Your task to perform on an android device: turn off translation in the chrome app Image 0: 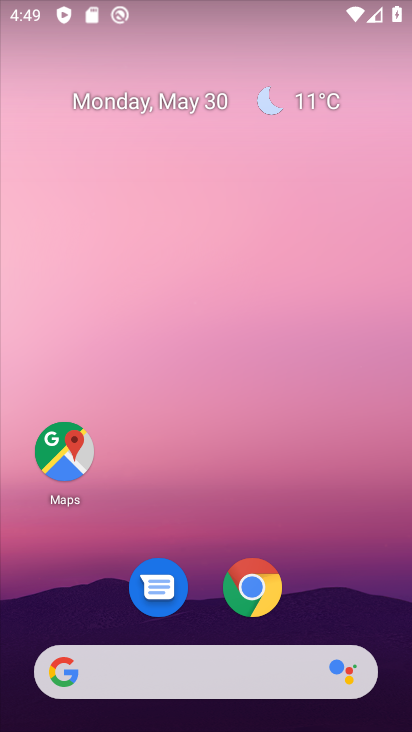
Step 0: drag from (309, 483) to (218, 37)
Your task to perform on an android device: turn off translation in the chrome app Image 1: 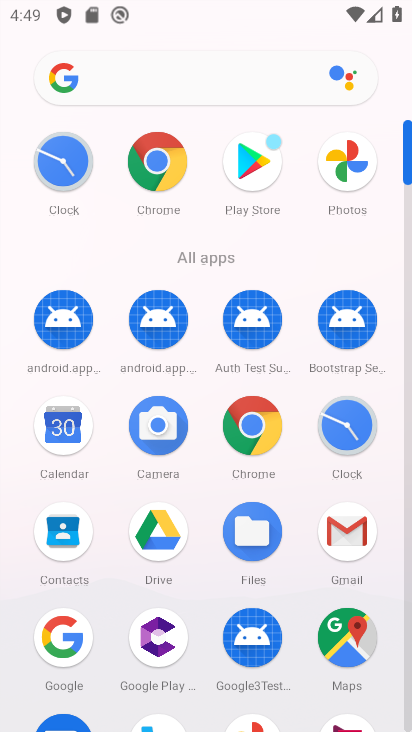
Step 1: drag from (16, 522) to (14, 284)
Your task to perform on an android device: turn off translation in the chrome app Image 2: 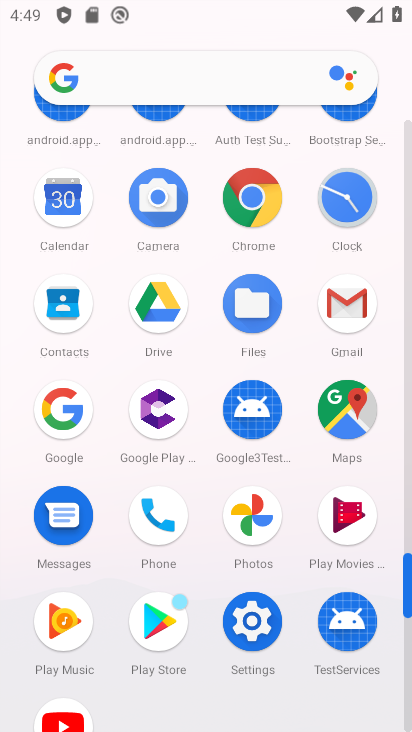
Step 2: click (250, 195)
Your task to perform on an android device: turn off translation in the chrome app Image 3: 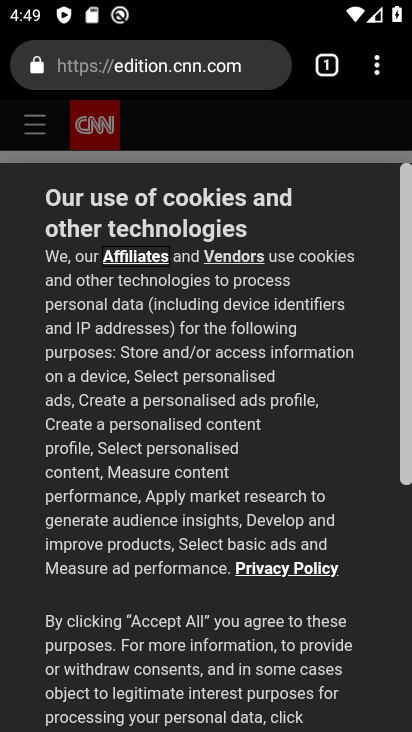
Step 3: drag from (378, 69) to (162, 634)
Your task to perform on an android device: turn off translation in the chrome app Image 4: 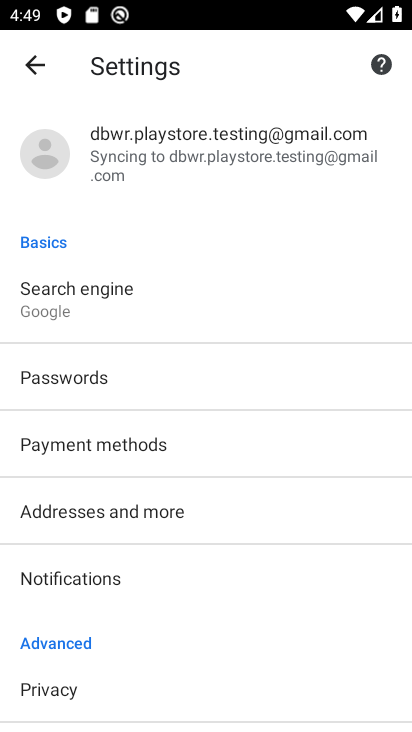
Step 4: drag from (233, 533) to (235, 217)
Your task to perform on an android device: turn off translation in the chrome app Image 5: 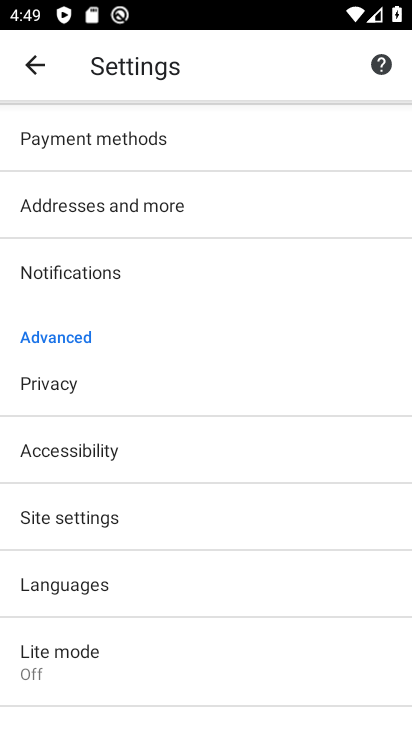
Step 5: drag from (206, 528) to (208, 222)
Your task to perform on an android device: turn off translation in the chrome app Image 6: 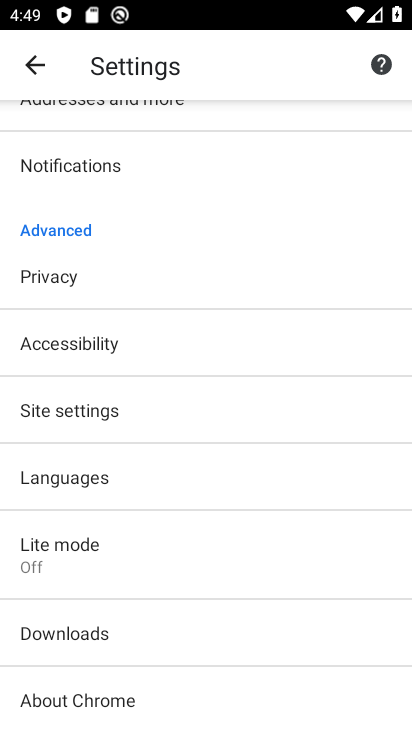
Step 6: drag from (164, 608) to (198, 289)
Your task to perform on an android device: turn off translation in the chrome app Image 7: 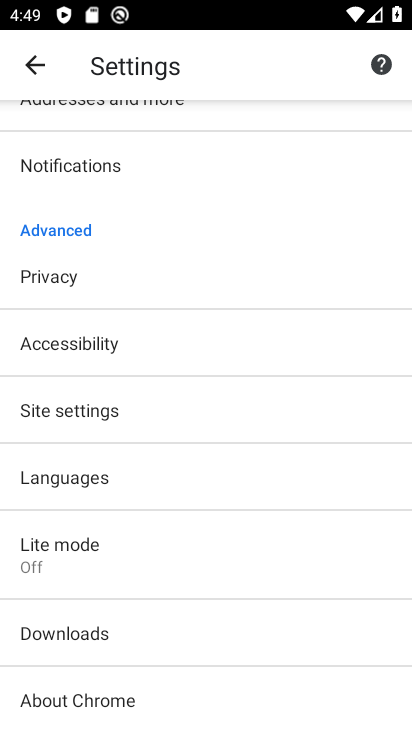
Step 7: click (102, 474)
Your task to perform on an android device: turn off translation in the chrome app Image 8: 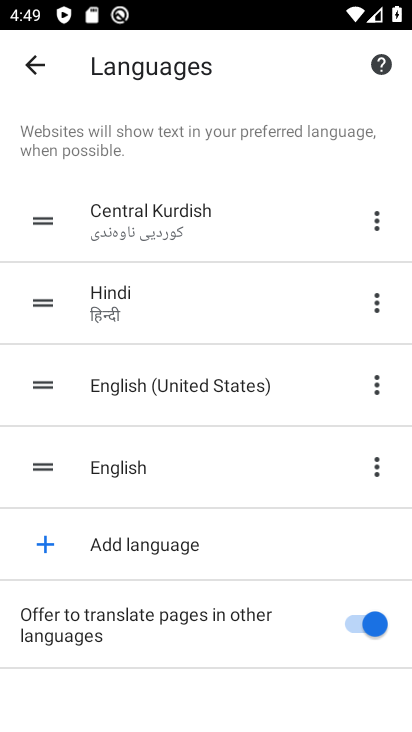
Step 8: click (351, 609)
Your task to perform on an android device: turn off translation in the chrome app Image 9: 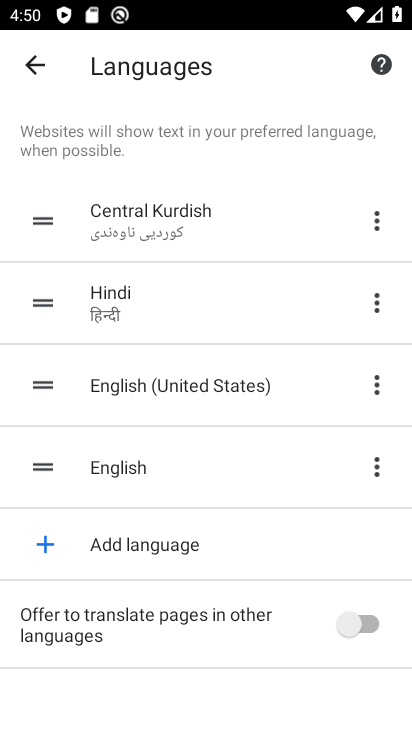
Step 9: task complete